Your task to perform on an android device: Go to calendar. Show me events next week Image 0: 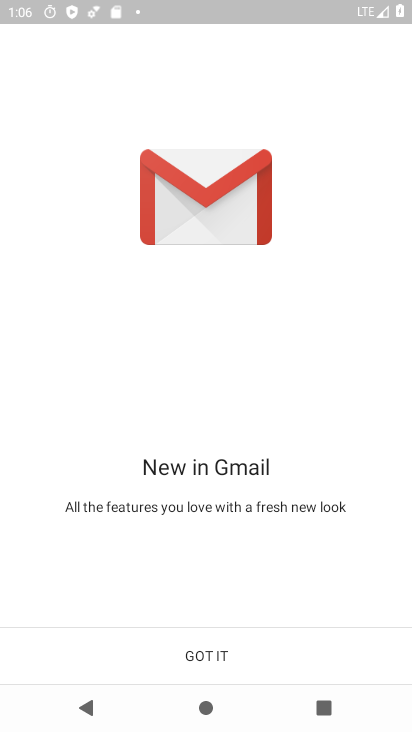
Step 0: press home button
Your task to perform on an android device: Go to calendar. Show me events next week Image 1: 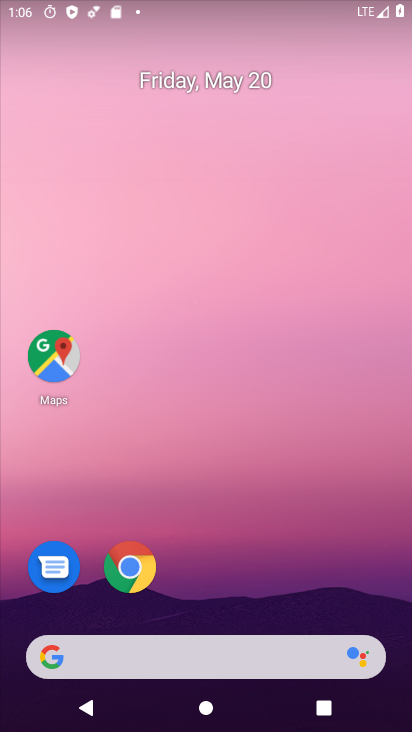
Step 1: drag from (269, 578) to (183, 226)
Your task to perform on an android device: Go to calendar. Show me events next week Image 2: 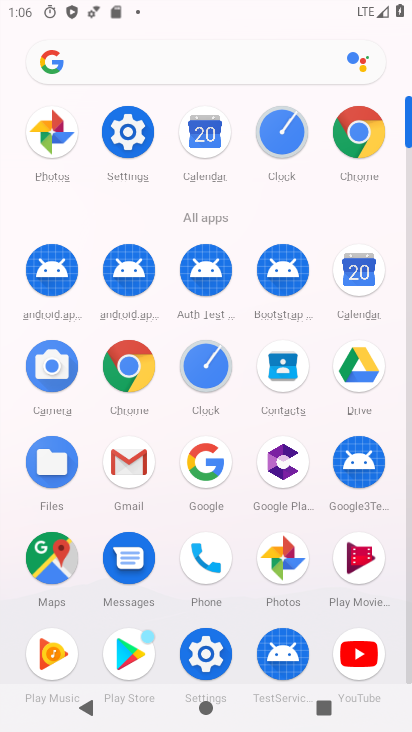
Step 2: click (369, 278)
Your task to perform on an android device: Go to calendar. Show me events next week Image 3: 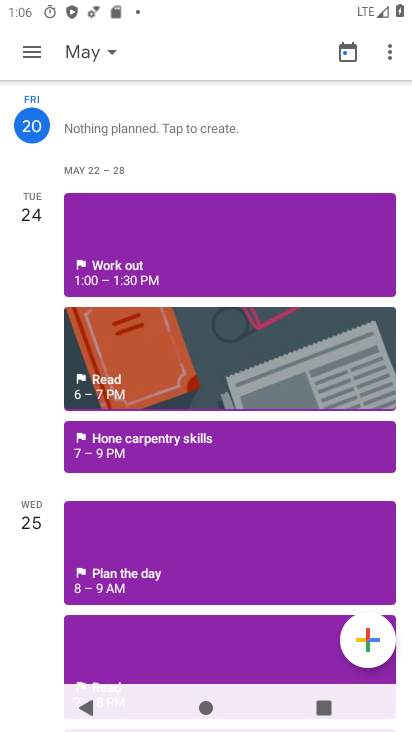
Step 3: click (26, 55)
Your task to perform on an android device: Go to calendar. Show me events next week Image 4: 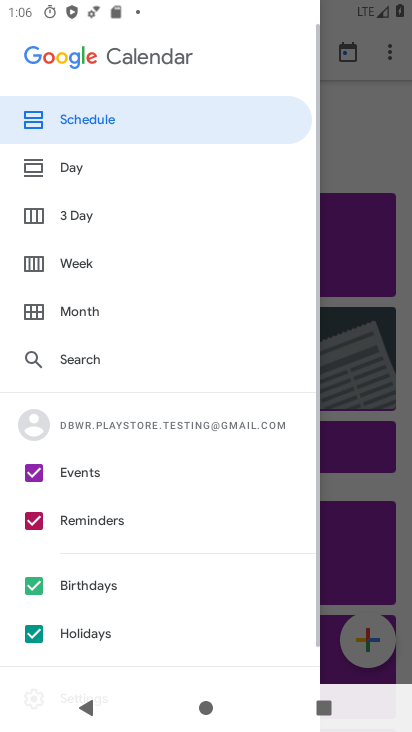
Step 4: click (86, 274)
Your task to perform on an android device: Go to calendar. Show me events next week Image 5: 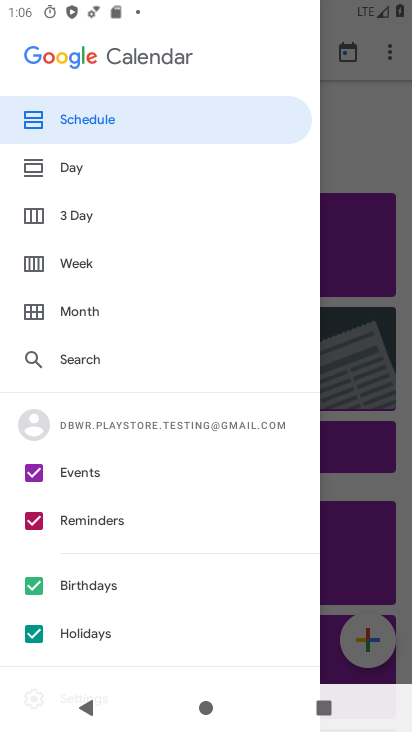
Step 5: click (31, 633)
Your task to perform on an android device: Go to calendar. Show me events next week Image 6: 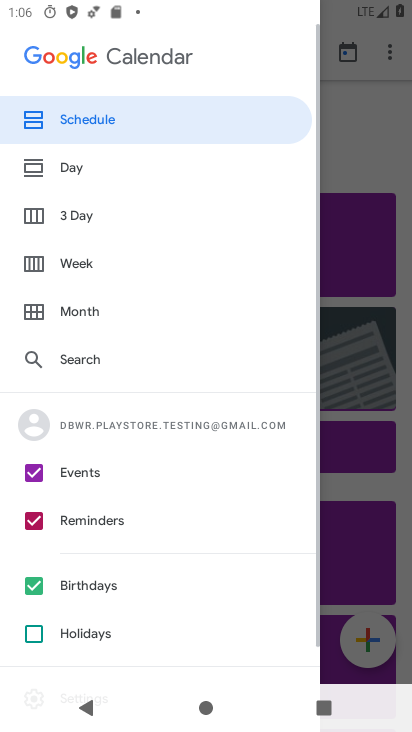
Step 6: click (27, 584)
Your task to perform on an android device: Go to calendar. Show me events next week Image 7: 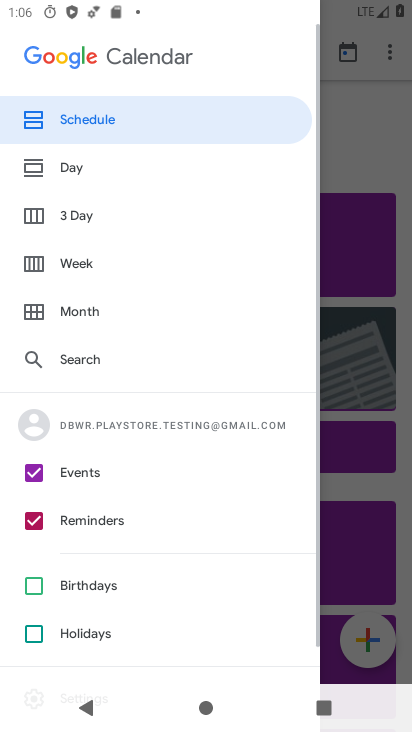
Step 7: click (32, 514)
Your task to perform on an android device: Go to calendar. Show me events next week Image 8: 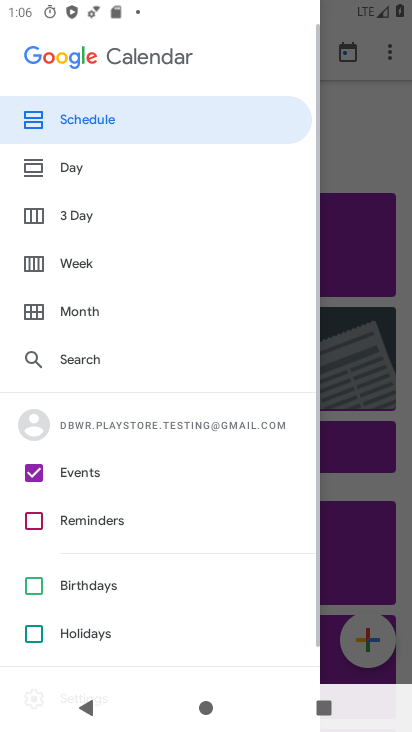
Step 8: click (47, 263)
Your task to perform on an android device: Go to calendar. Show me events next week Image 9: 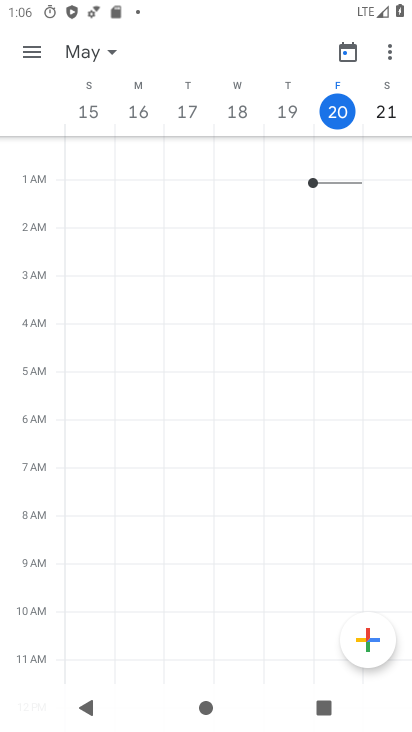
Step 9: click (100, 55)
Your task to perform on an android device: Go to calendar. Show me events next week Image 10: 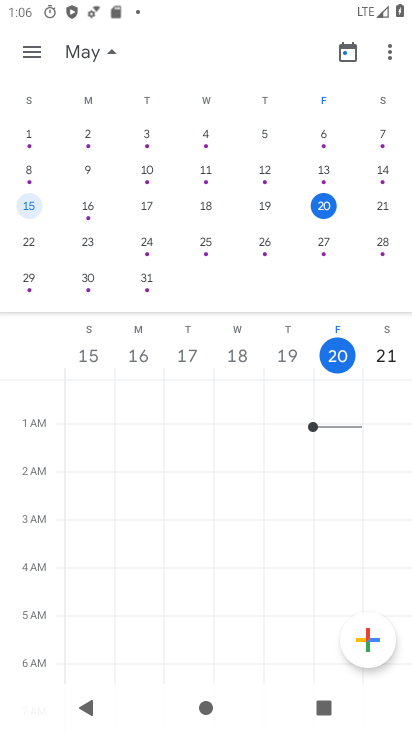
Step 10: click (168, 247)
Your task to perform on an android device: Go to calendar. Show me events next week Image 11: 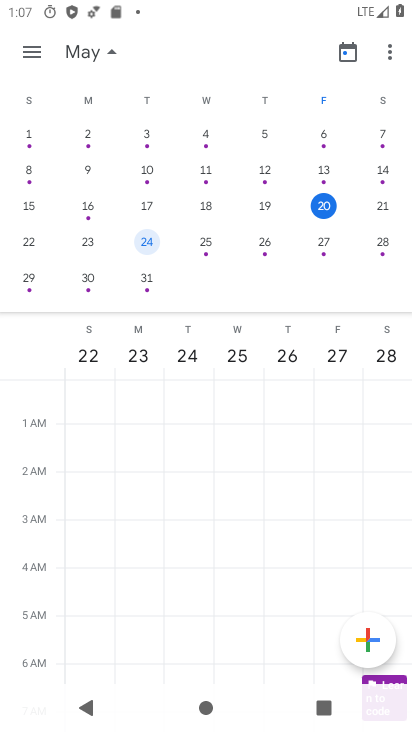
Step 11: click (96, 51)
Your task to perform on an android device: Go to calendar. Show me events next week Image 12: 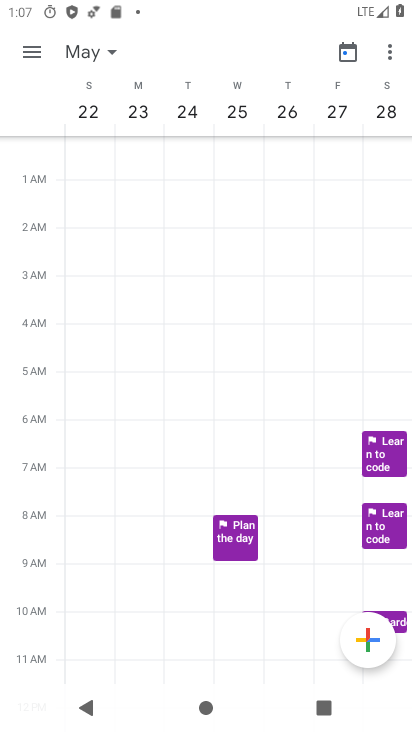
Step 12: task complete